Your task to perform on an android device: toggle javascript in the chrome app Image 0: 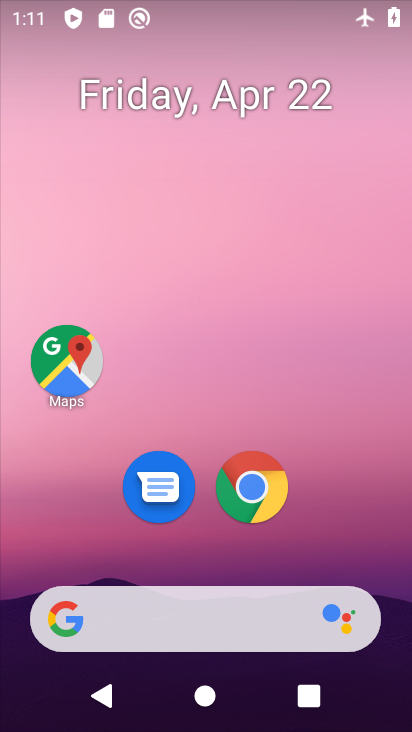
Step 0: click (246, 495)
Your task to perform on an android device: toggle javascript in the chrome app Image 1: 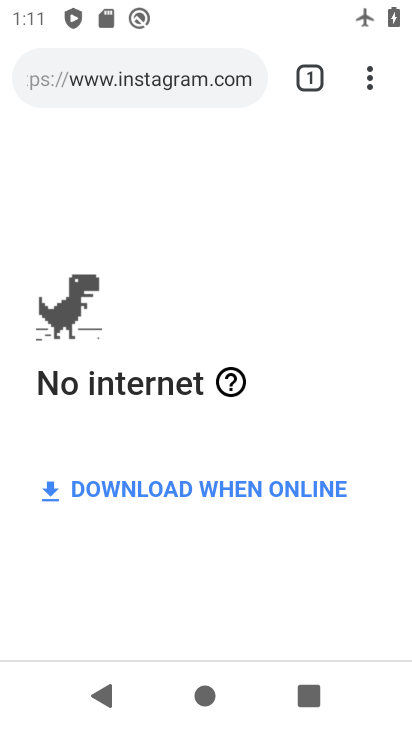
Step 1: drag from (374, 72) to (148, 550)
Your task to perform on an android device: toggle javascript in the chrome app Image 2: 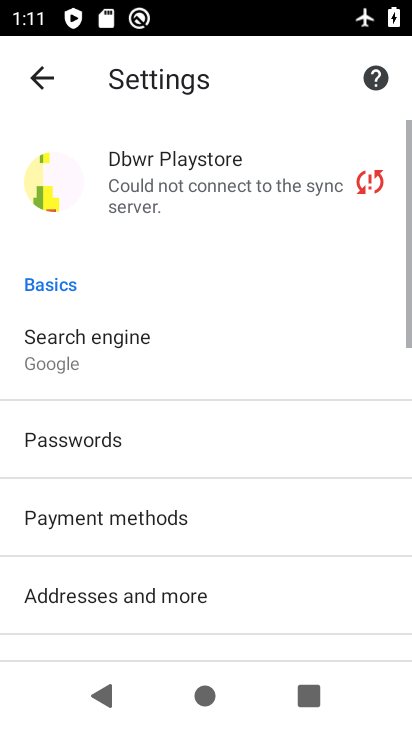
Step 2: drag from (172, 543) to (242, 241)
Your task to perform on an android device: toggle javascript in the chrome app Image 3: 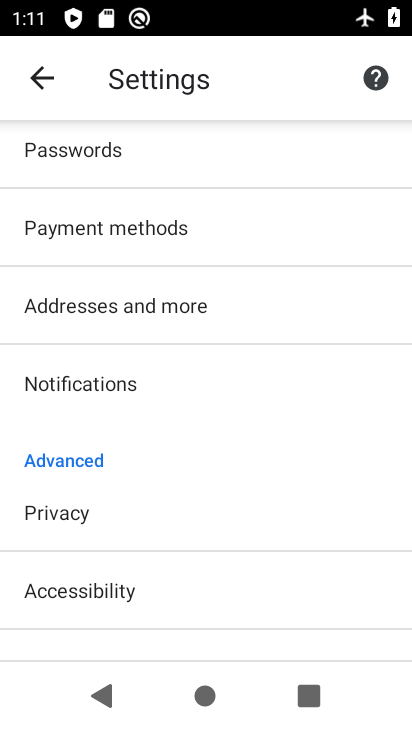
Step 3: drag from (209, 471) to (231, 316)
Your task to perform on an android device: toggle javascript in the chrome app Image 4: 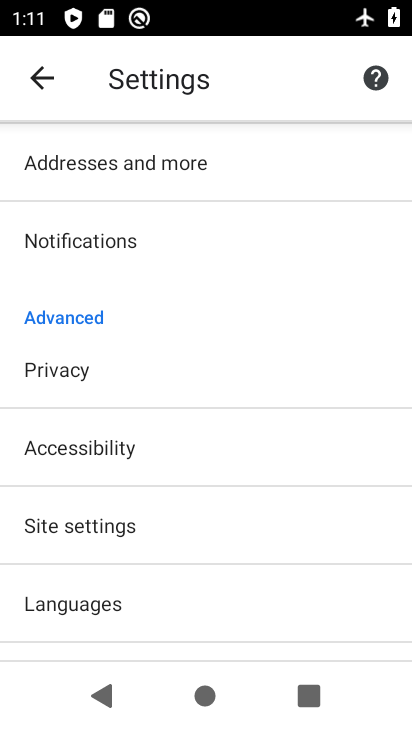
Step 4: click (170, 530)
Your task to perform on an android device: toggle javascript in the chrome app Image 5: 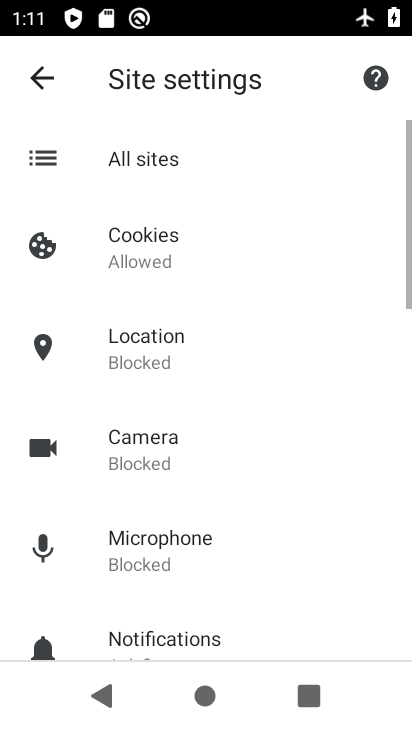
Step 5: drag from (217, 593) to (240, 334)
Your task to perform on an android device: toggle javascript in the chrome app Image 6: 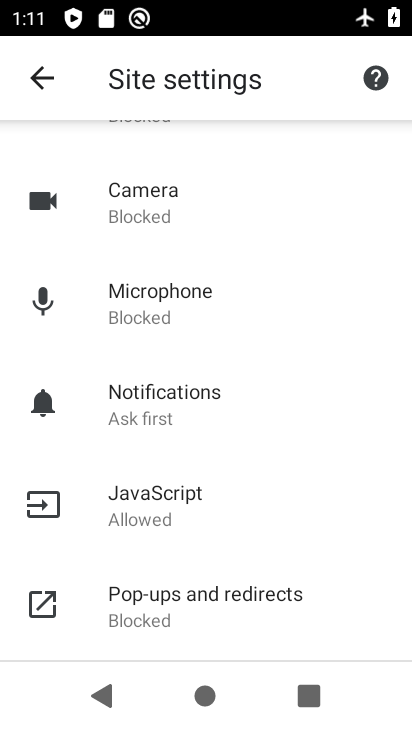
Step 6: click (190, 497)
Your task to perform on an android device: toggle javascript in the chrome app Image 7: 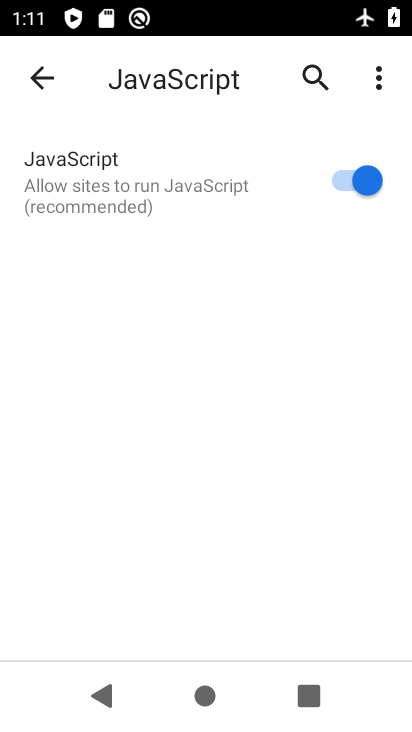
Step 7: click (334, 178)
Your task to perform on an android device: toggle javascript in the chrome app Image 8: 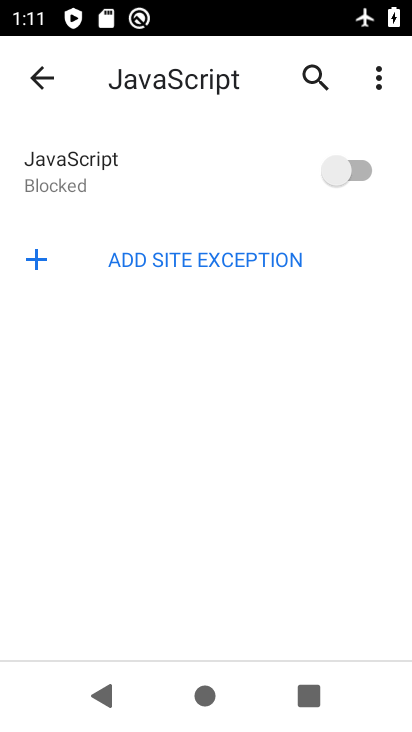
Step 8: task complete